Your task to perform on an android device: allow cookies in the chrome app Image 0: 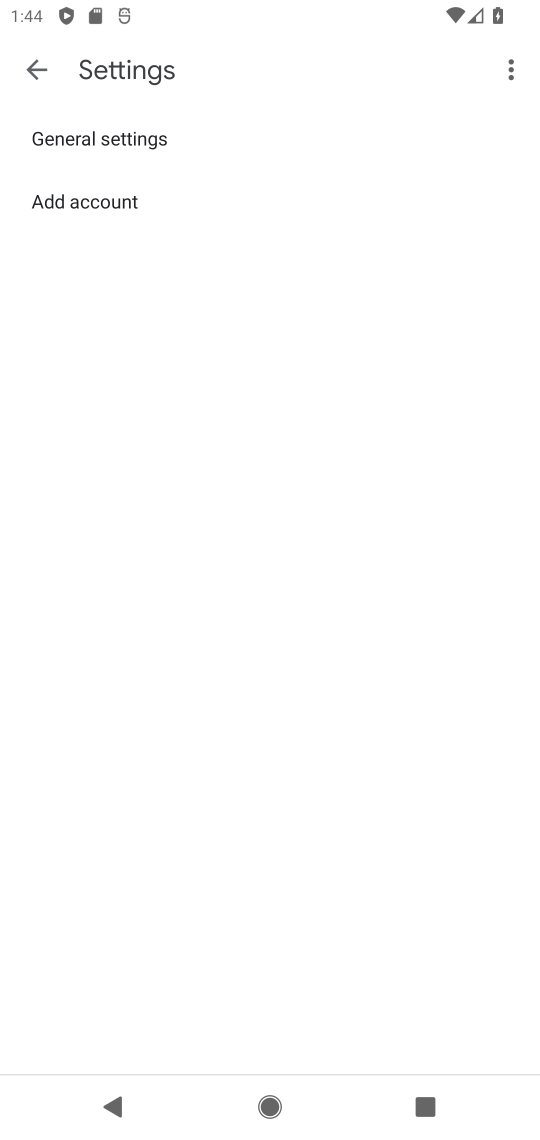
Step 0: press home button
Your task to perform on an android device: allow cookies in the chrome app Image 1: 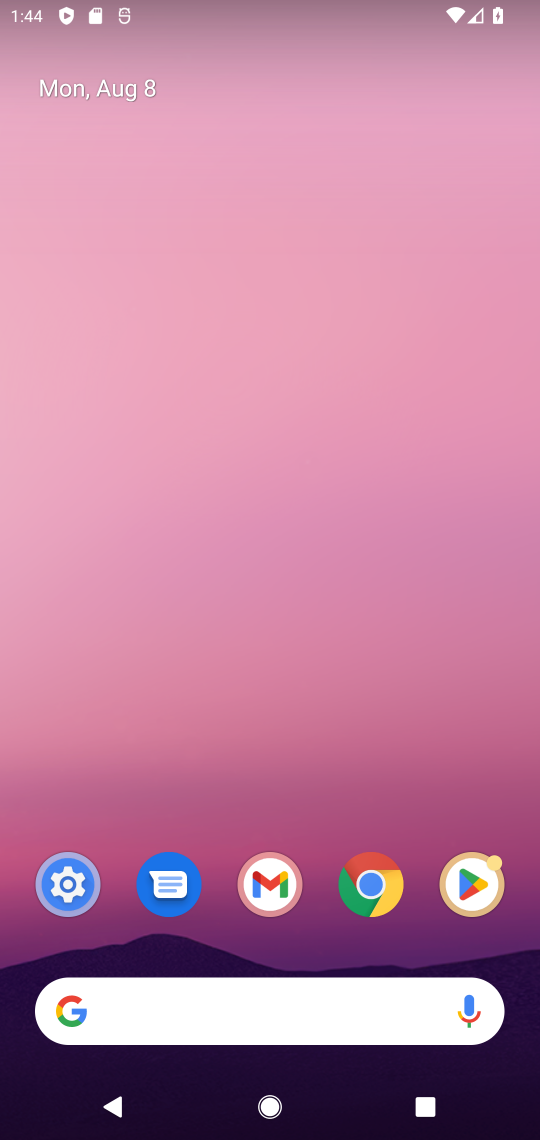
Step 1: click (368, 884)
Your task to perform on an android device: allow cookies in the chrome app Image 2: 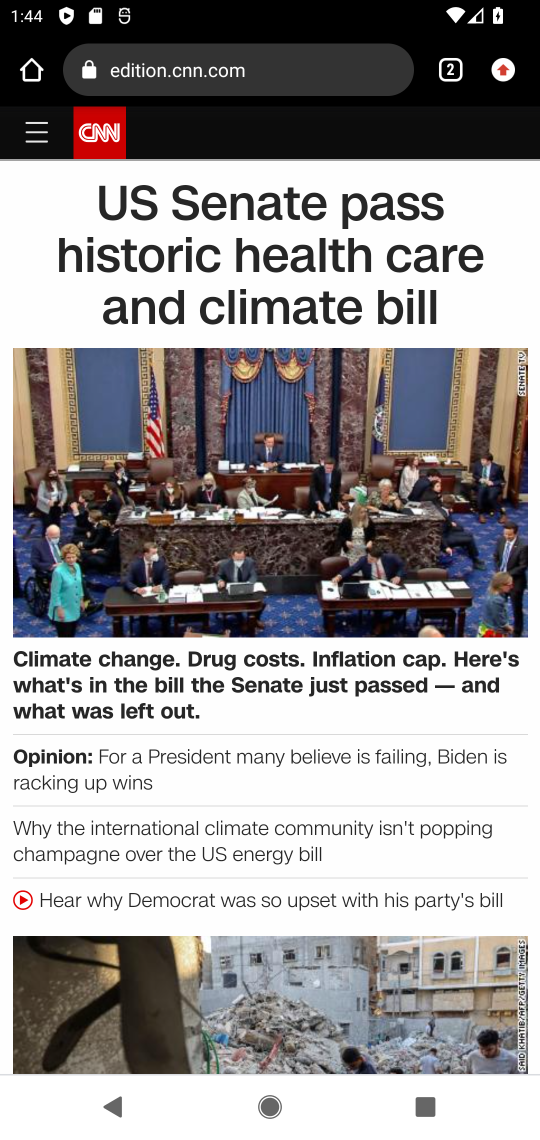
Step 2: click (507, 63)
Your task to perform on an android device: allow cookies in the chrome app Image 3: 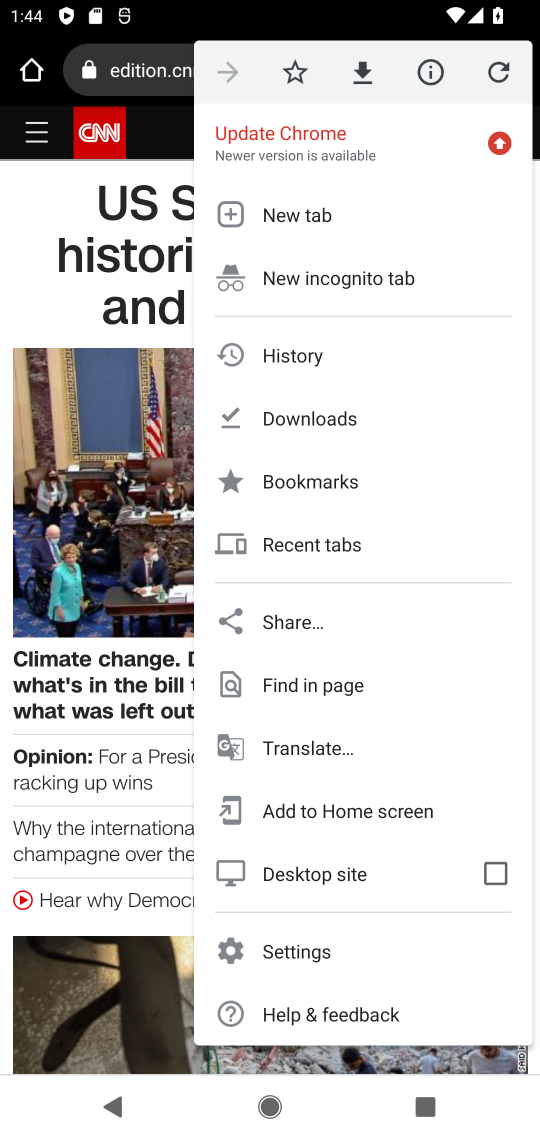
Step 3: click (309, 950)
Your task to perform on an android device: allow cookies in the chrome app Image 4: 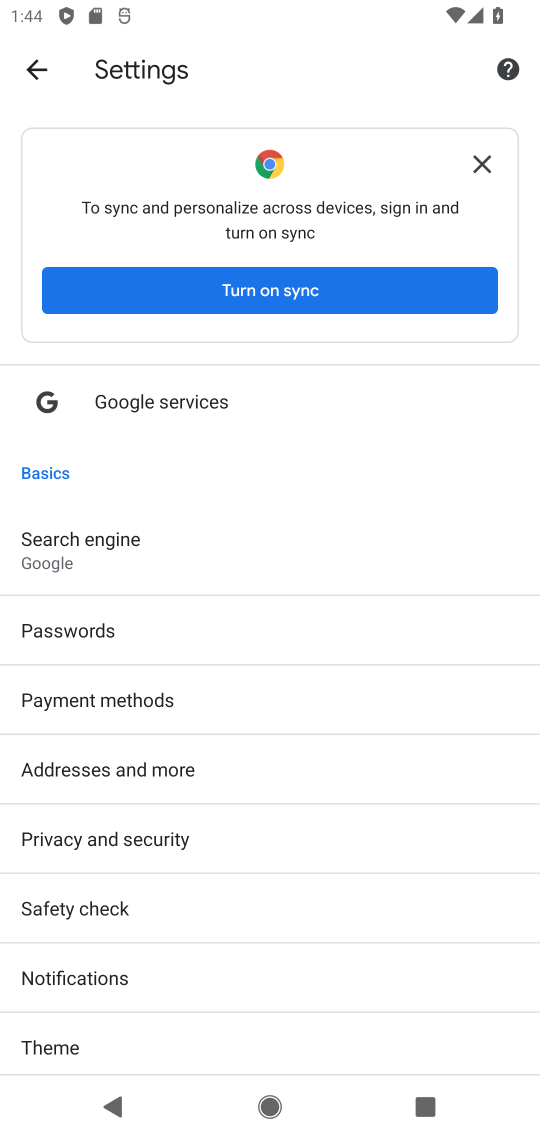
Step 4: drag from (263, 957) to (281, 376)
Your task to perform on an android device: allow cookies in the chrome app Image 5: 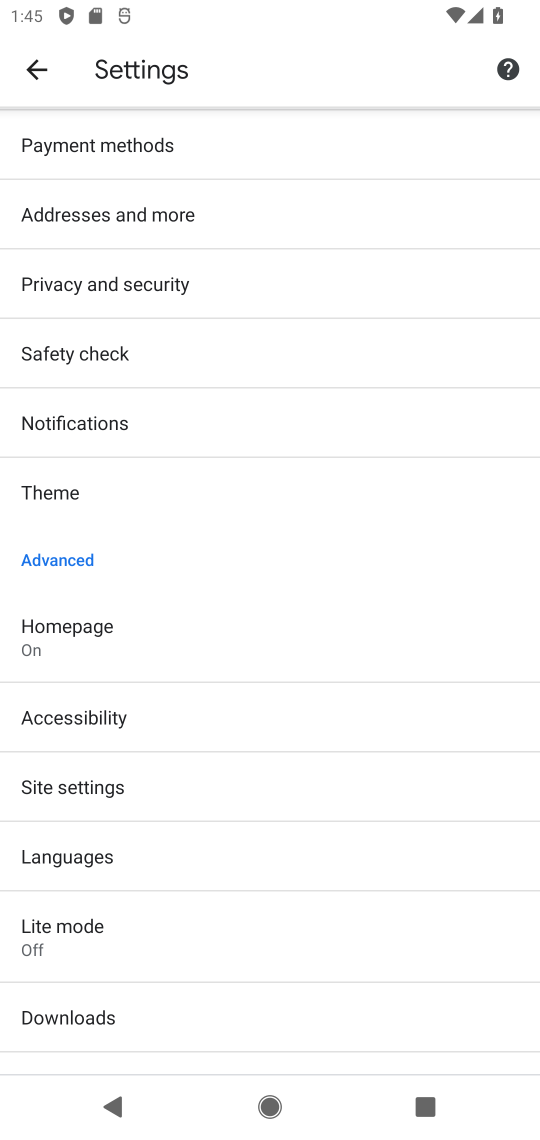
Step 5: click (94, 777)
Your task to perform on an android device: allow cookies in the chrome app Image 6: 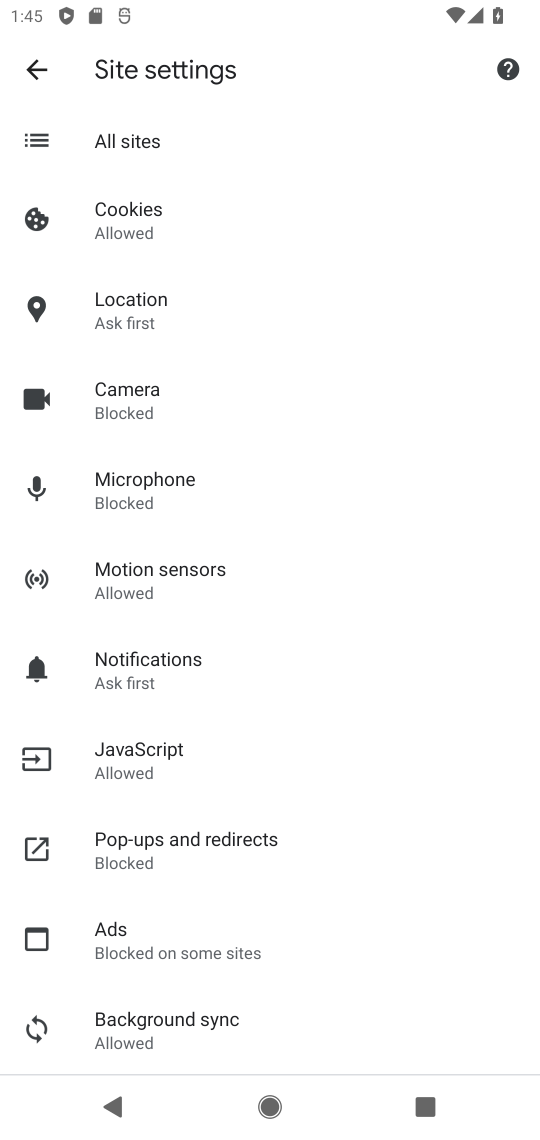
Step 6: click (133, 203)
Your task to perform on an android device: allow cookies in the chrome app Image 7: 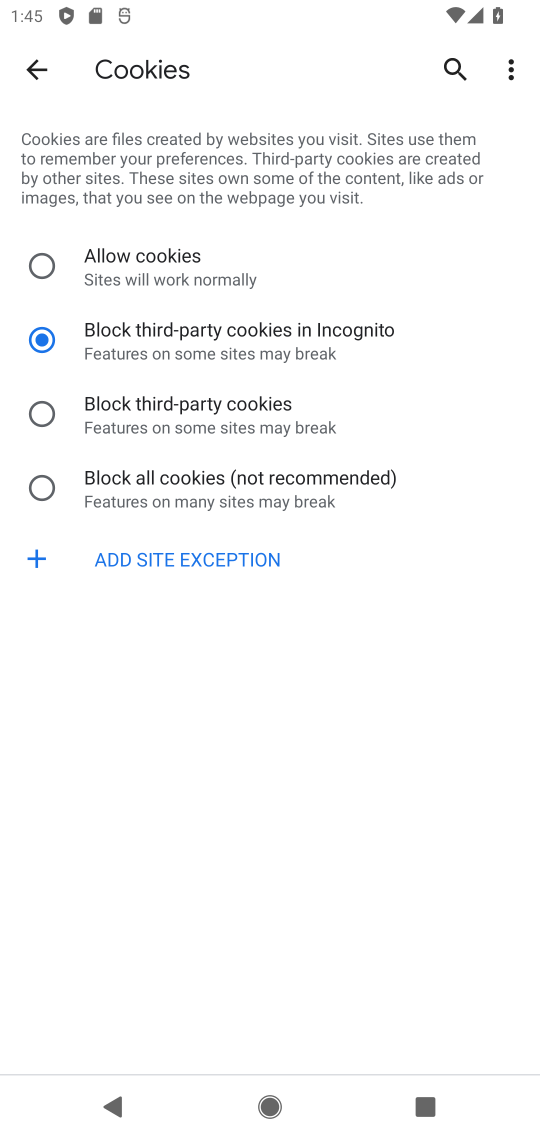
Step 7: click (43, 257)
Your task to perform on an android device: allow cookies in the chrome app Image 8: 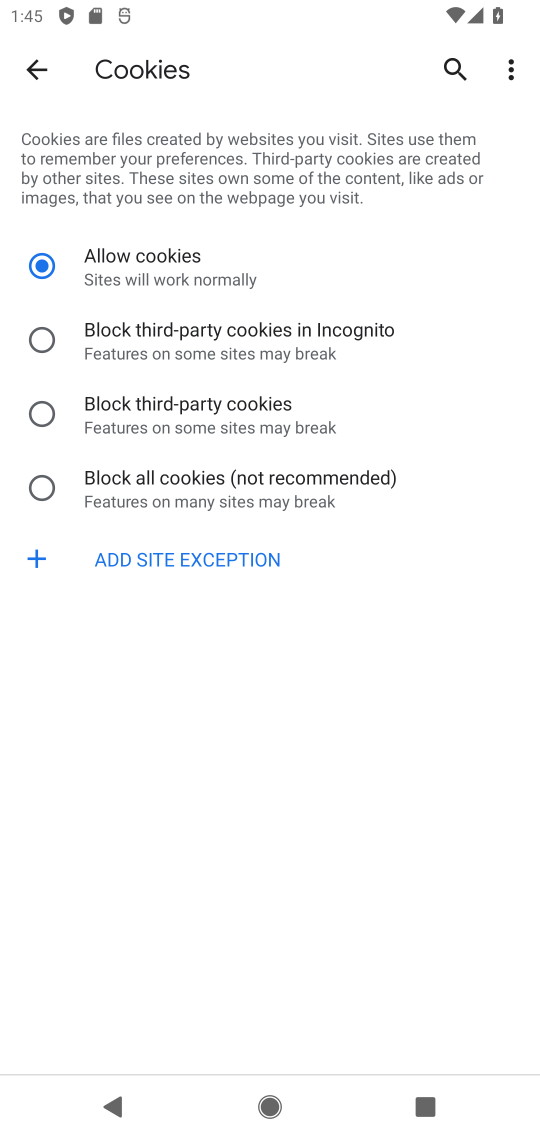
Step 8: task complete